Your task to perform on an android device: visit the assistant section in the google photos Image 0: 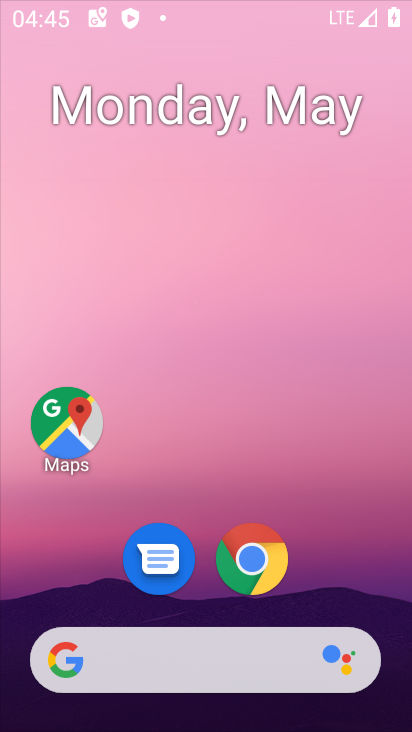
Step 0: click (408, 523)
Your task to perform on an android device: visit the assistant section in the google photos Image 1: 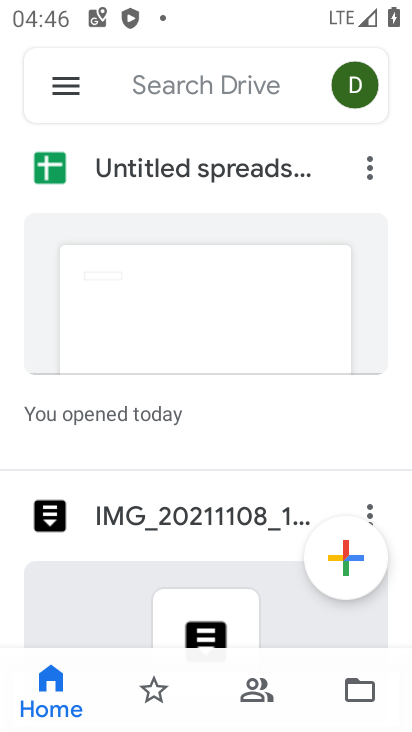
Step 1: press home button
Your task to perform on an android device: visit the assistant section in the google photos Image 2: 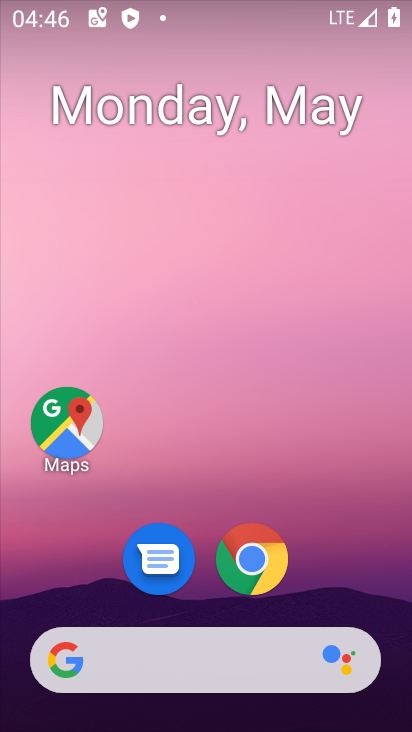
Step 2: drag from (312, 693) to (368, 112)
Your task to perform on an android device: visit the assistant section in the google photos Image 3: 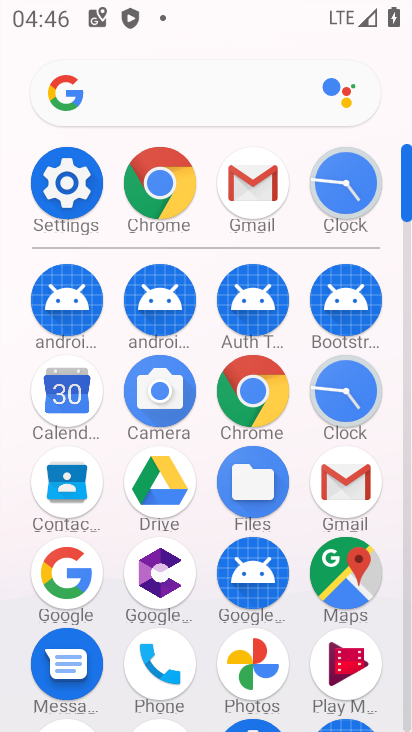
Step 3: click (250, 666)
Your task to perform on an android device: visit the assistant section in the google photos Image 4: 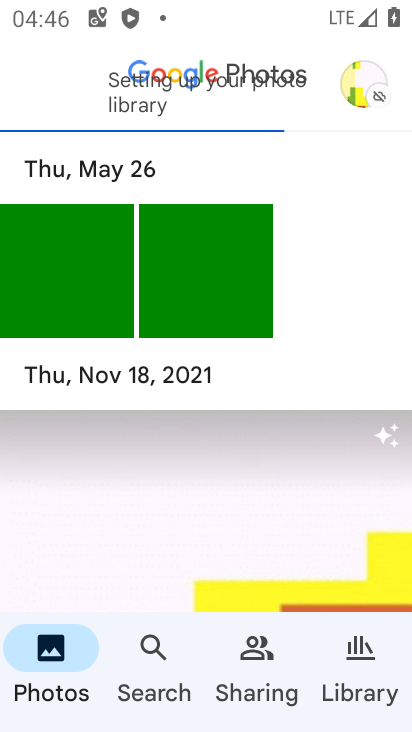
Step 4: click (352, 653)
Your task to perform on an android device: visit the assistant section in the google photos Image 5: 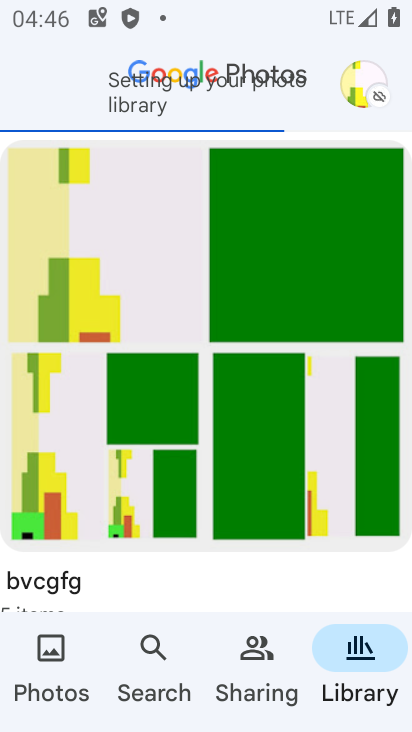
Step 5: task complete